Your task to perform on an android device: Open Android settings Image 0: 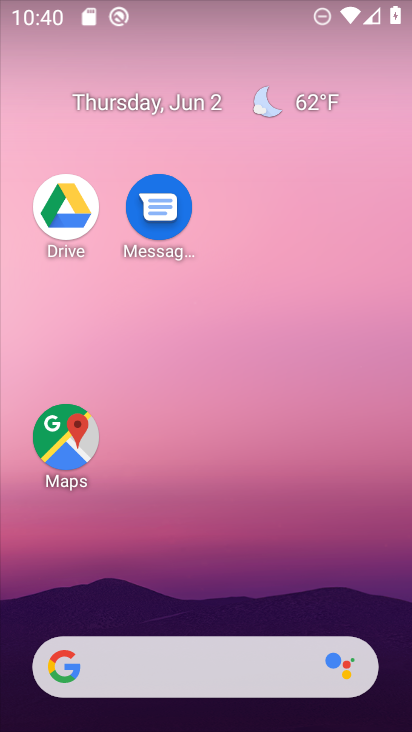
Step 0: drag from (170, 619) to (69, 6)
Your task to perform on an android device: Open Android settings Image 1: 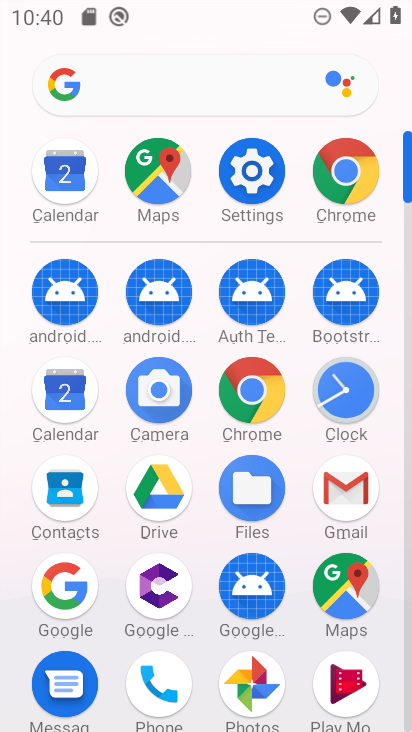
Step 1: click (258, 189)
Your task to perform on an android device: Open Android settings Image 2: 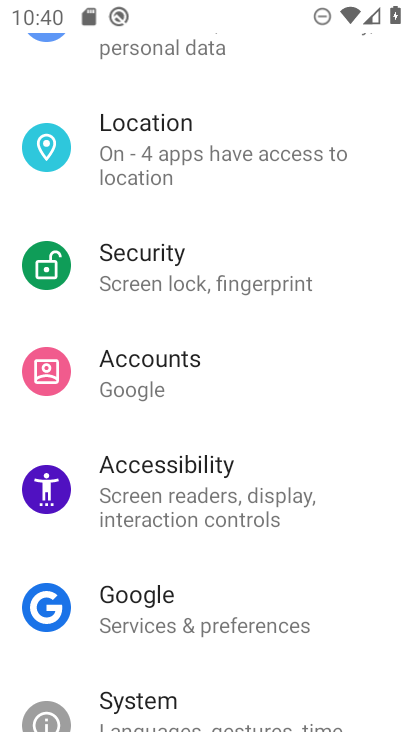
Step 2: drag from (183, 586) to (153, 51)
Your task to perform on an android device: Open Android settings Image 3: 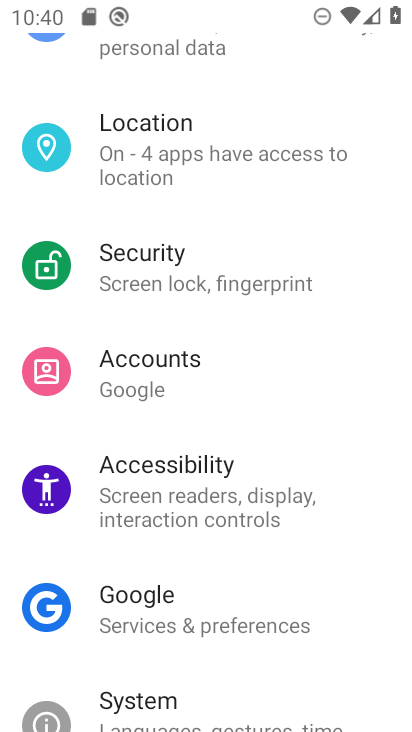
Step 3: drag from (160, 540) to (148, 40)
Your task to perform on an android device: Open Android settings Image 4: 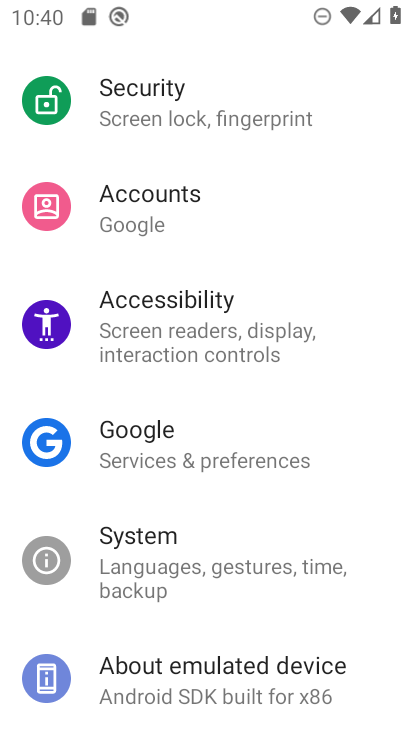
Step 4: click (142, 665)
Your task to perform on an android device: Open Android settings Image 5: 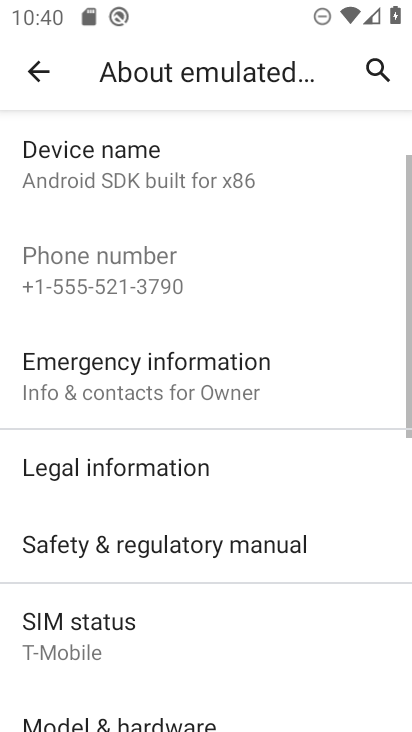
Step 5: task complete